Your task to perform on an android device: check android version Image 0: 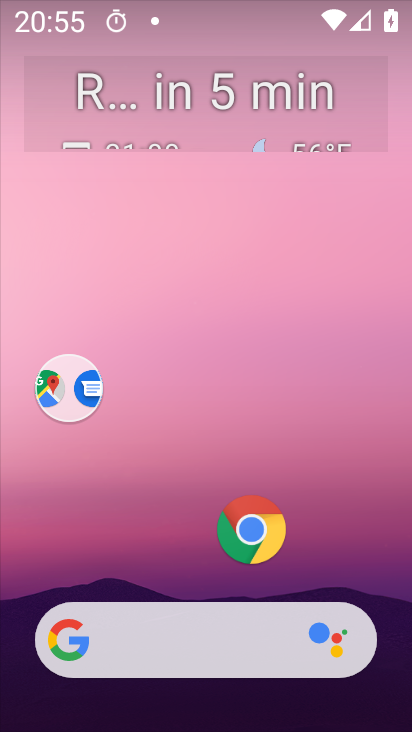
Step 0: drag from (178, 565) to (176, 111)
Your task to perform on an android device: check android version Image 1: 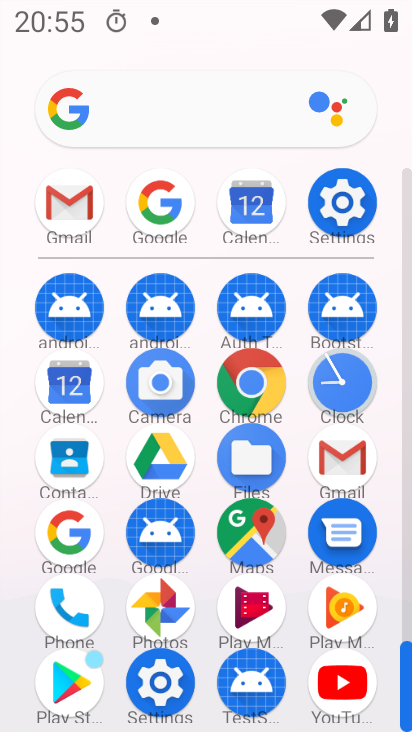
Step 1: click (352, 194)
Your task to perform on an android device: check android version Image 2: 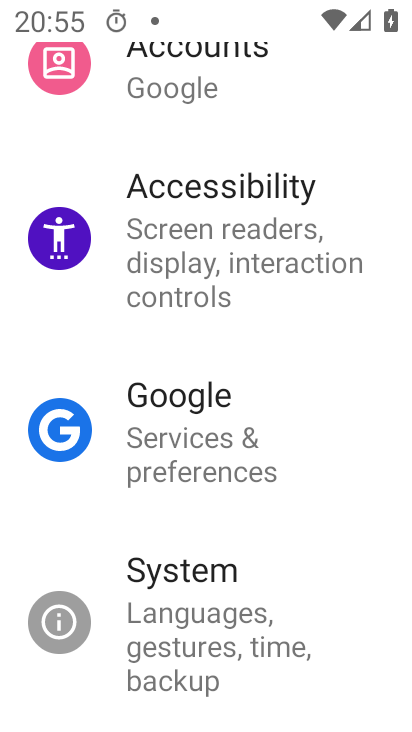
Step 2: drag from (235, 583) to (178, 75)
Your task to perform on an android device: check android version Image 3: 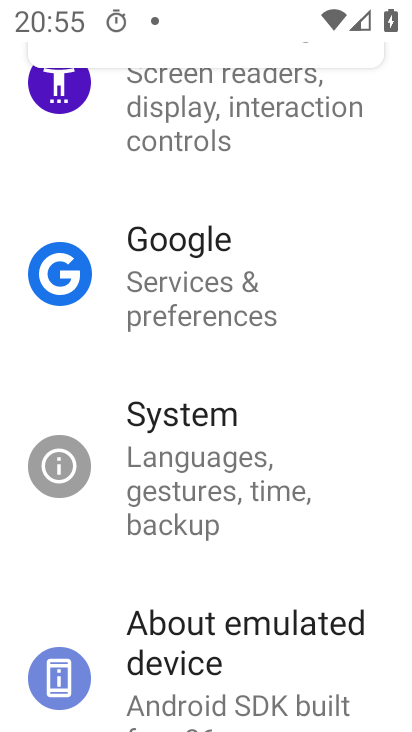
Step 3: click (273, 625)
Your task to perform on an android device: check android version Image 4: 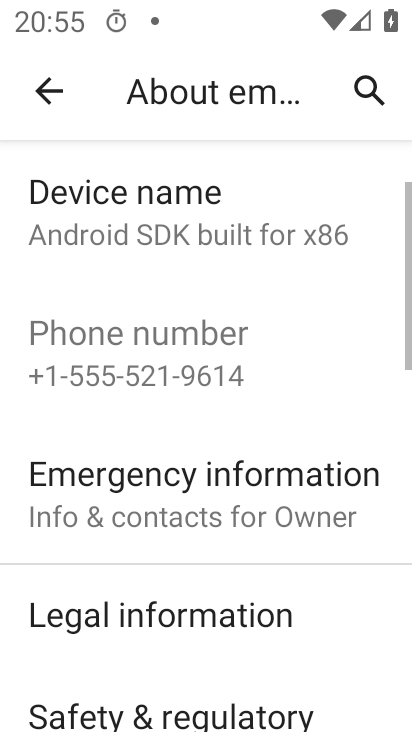
Step 4: drag from (273, 623) to (293, 53)
Your task to perform on an android device: check android version Image 5: 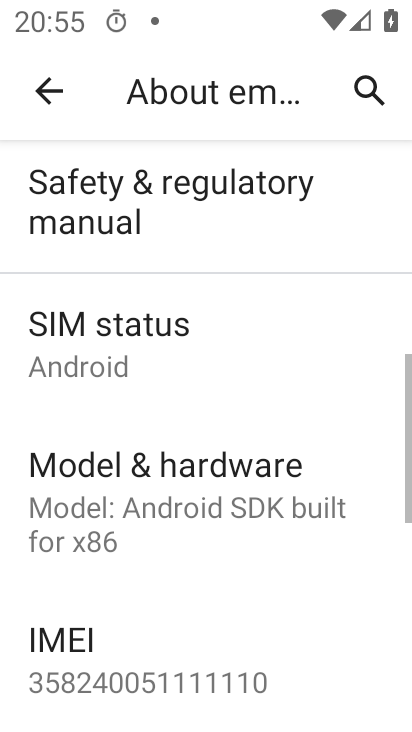
Step 5: drag from (121, 632) to (164, 201)
Your task to perform on an android device: check android version Image 6: 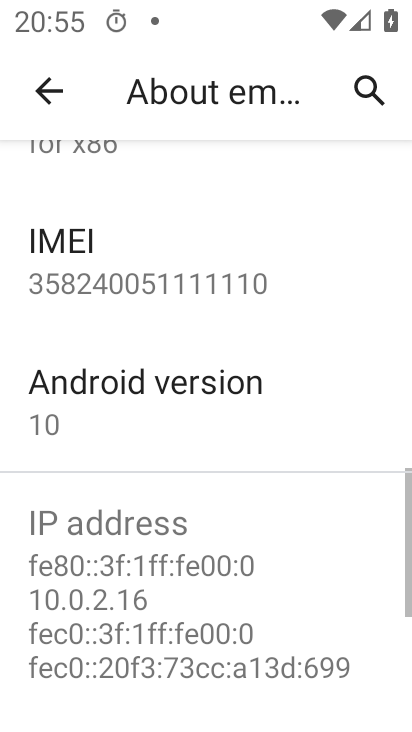
Step 6: click (140, 450)
Your task to perform on an android device: check android version Image 7: 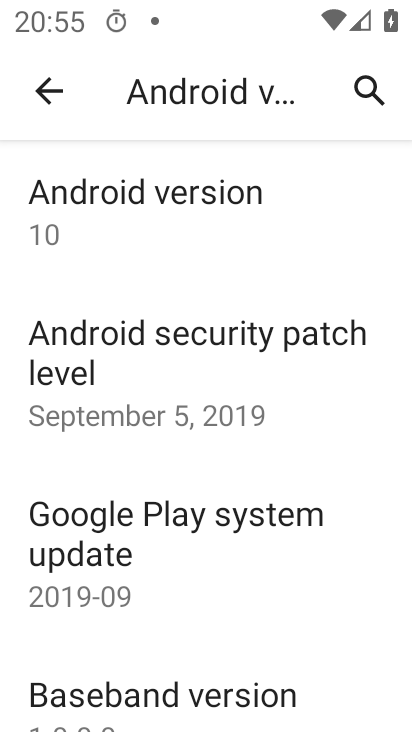
Step 7: click (173, 234)
Your task to perform on an android device: check android version Image 8: 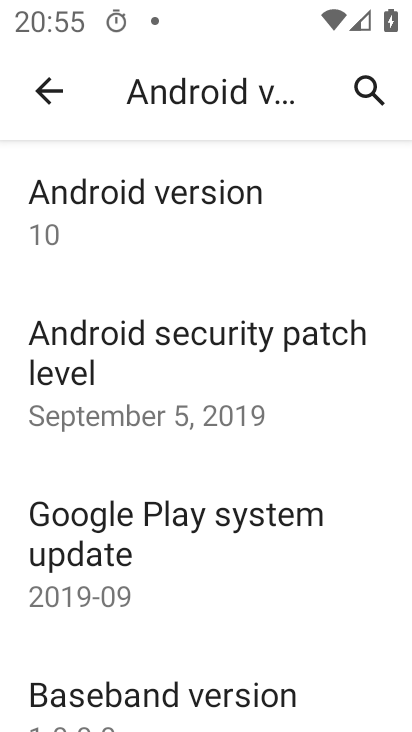
Step 8: task complete